Your task to perform on an android device: What's the weather today? Image 0: 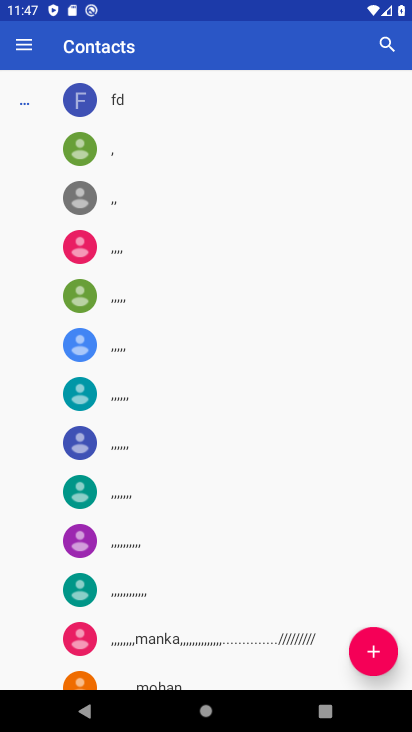
Step 0: press back button
Your task to perform on an android device: What's the weather today? Image 1: 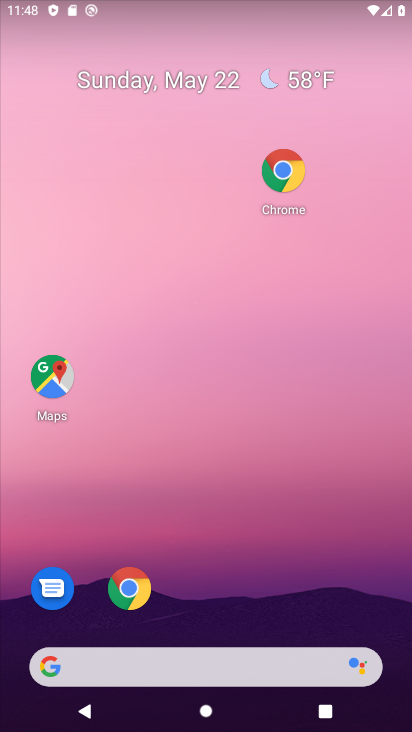
Step 1: drag from (10, 260) to (400, 396)
Your task to perform on an android device: What's the weather today? Image 2: 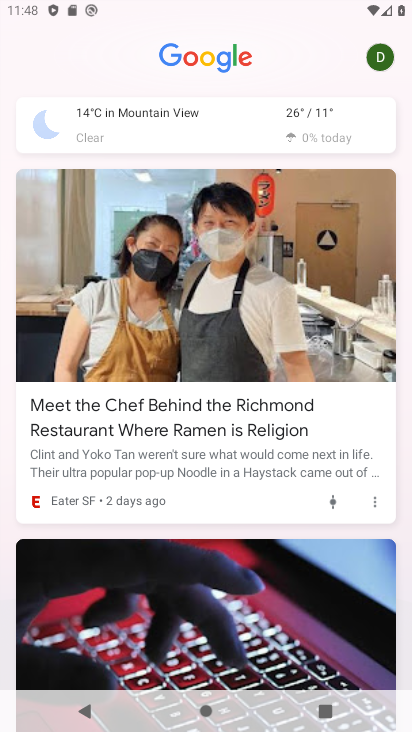
Step 2: click (155, 127)
Your task to perform on an android device: What's the weather today? Image 3: 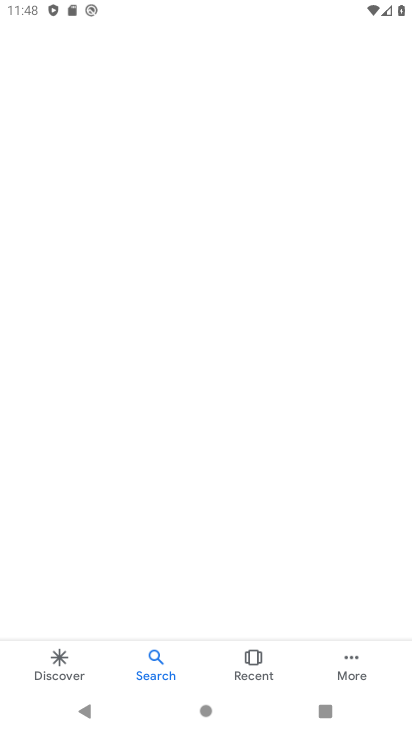
Step 3: task complete